Your task to perform on an android device: all mails in gmail Image 0: 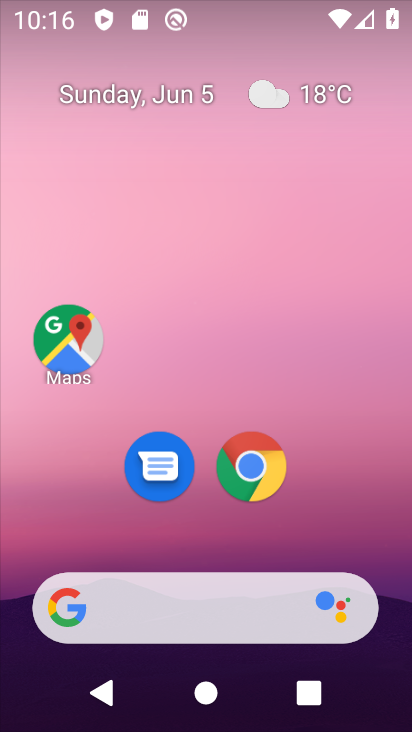
Step 0: drag from (327, 536) to (308, 70)
Your task to perform on an android device: all mails in gmail Image 1: 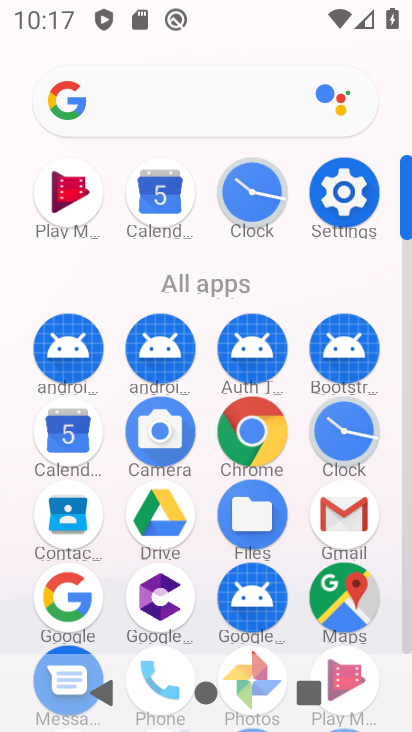
Step 1: click (341, 515)
Your task to perform on an android device: all mails in gmail Image 2: 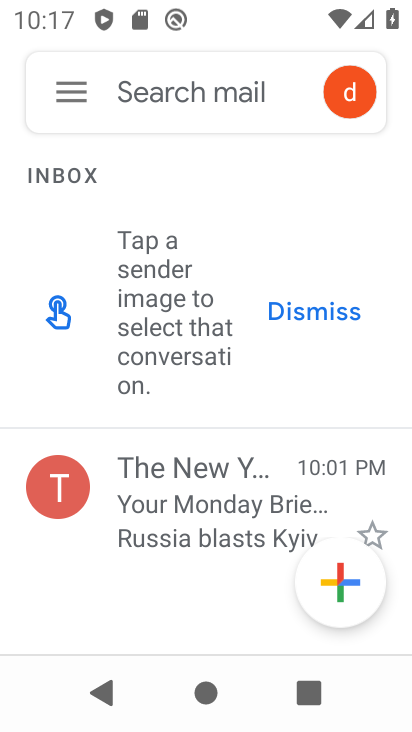
Step 2: click (59, 95)
Your task to perform on an android device: all mails in gmail Image 3: 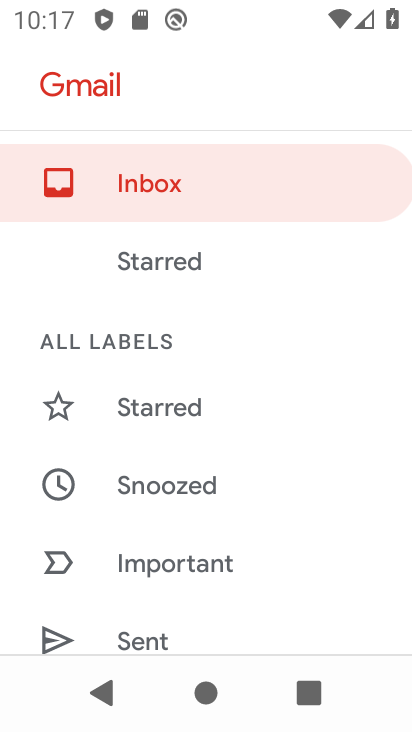
Step 3: drag from (194, 533) to (250, 432)
Your task to perform on an android device: all mails in gmail Image 4: 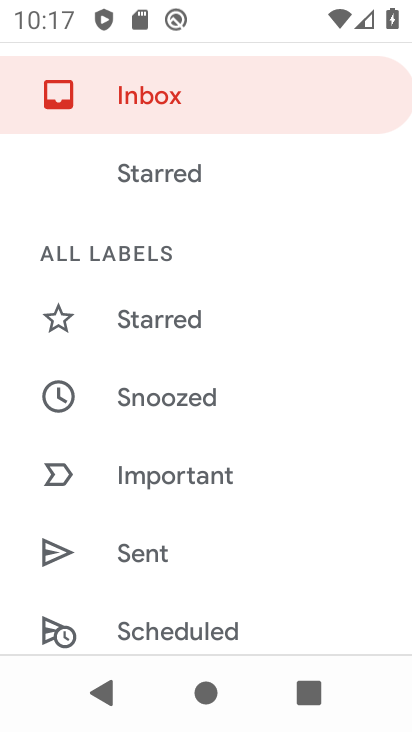
Step 4: drag from (189, 586) to (267, 457)
Your task to perform on an android device: all mails in gmail Image 5: 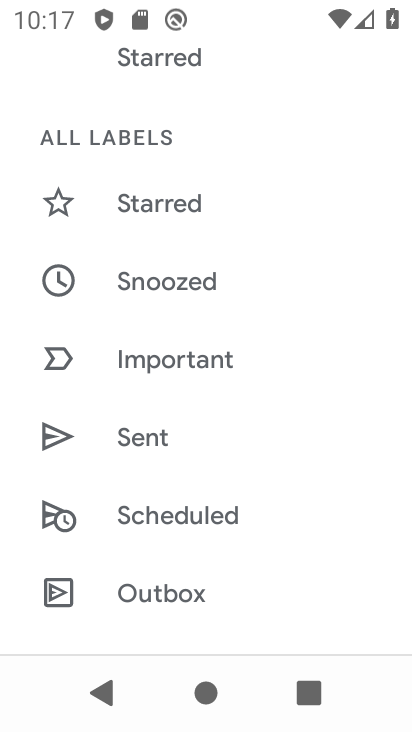
Step 5: drag from (173, 553) to (243, 438)
Your task to perform on an android device: all mails in gmail Image 6: 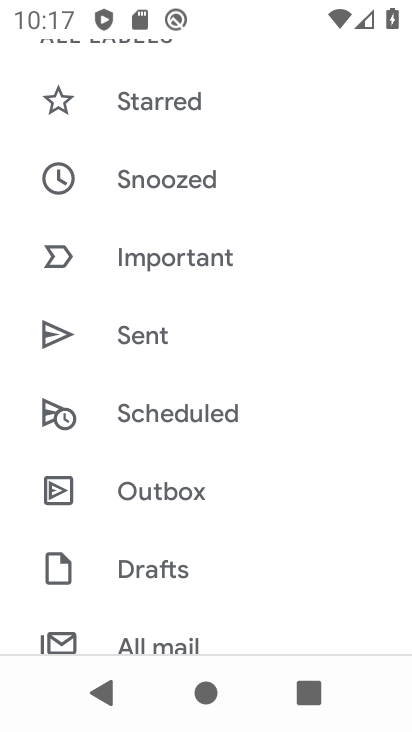
Step 6: drag from (173, 586) to (267, 463)
Your task to perform on an android device: all mails in gmail Image 7: 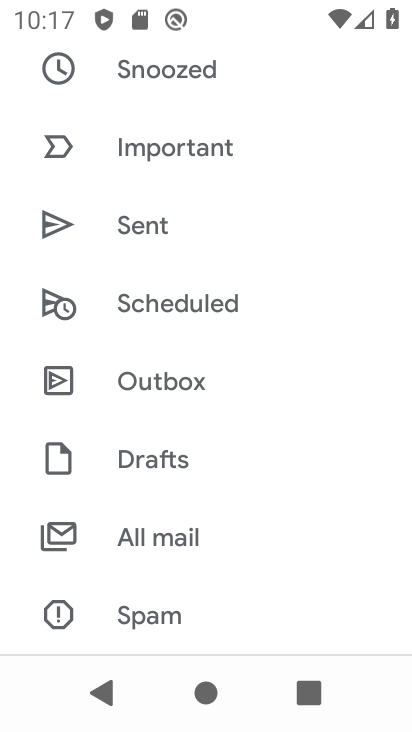
Step 7: click (199, 537)
Your task to perform on an android device: all mails in gmail Image 8: 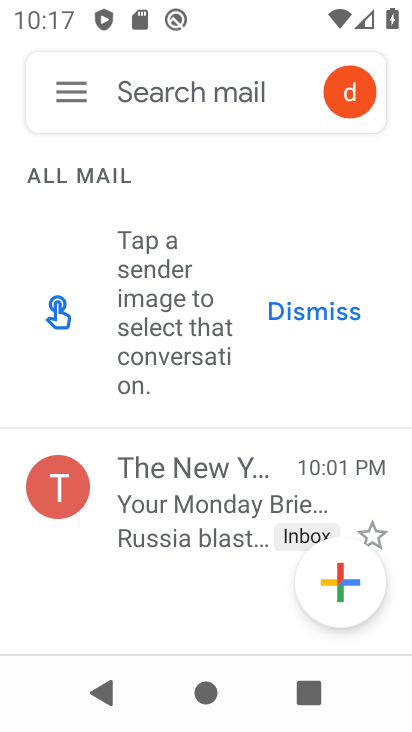
Step 8: task complete